Your task to perform on an android device: star an email in the gmail app Image 0: 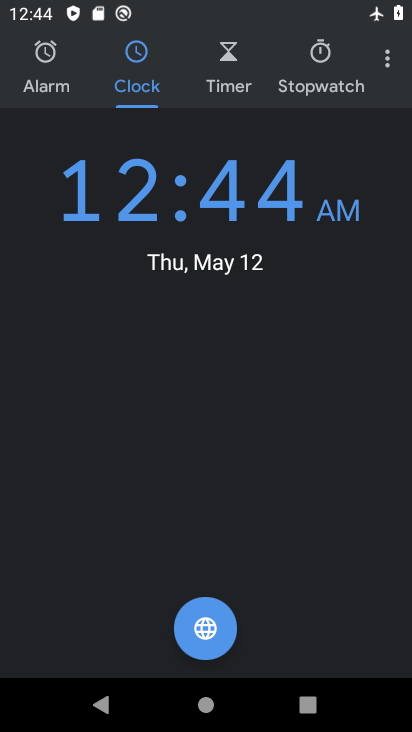
Step 0: press home button
Your task to perform on an android device: star an email in the gmail app Image 1: 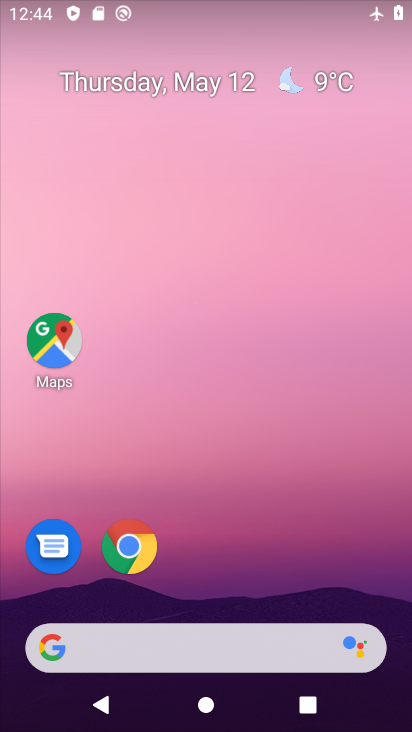
Step 1: drag from (262, 663) to (364, 239)
Your task to perform on an android device: star an email in the gmail app Image 2: 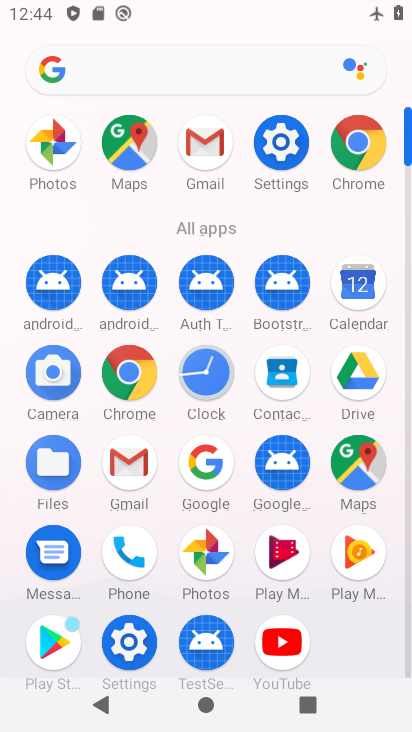
Step 2: click (183, 157)
Your task to perform on an android device: star an email in the gmail app Image 3: 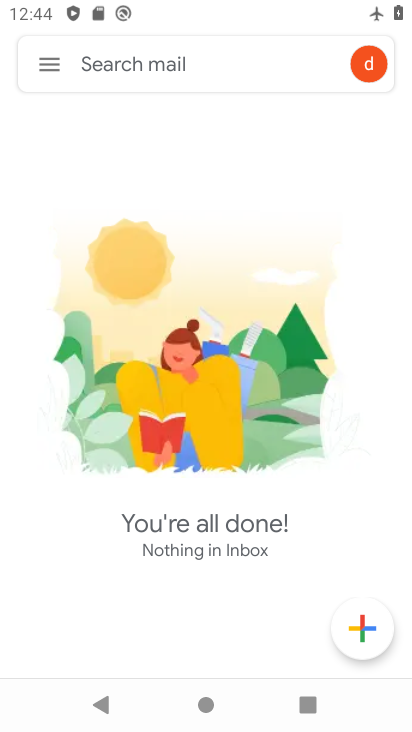
Step 3: click (52, 70)
Your task to perform on an android device: star an email in the gmail app Image 4: 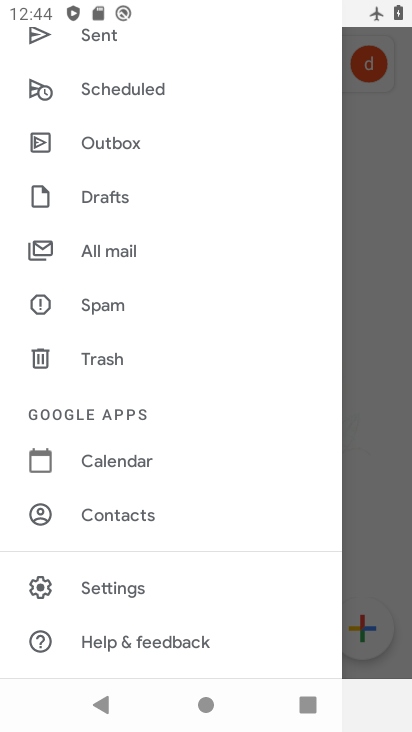
Step 4: drag from (127, 114) to (86, 321)
Your task to perform on an android device: star an email in the gmail app Image 5: 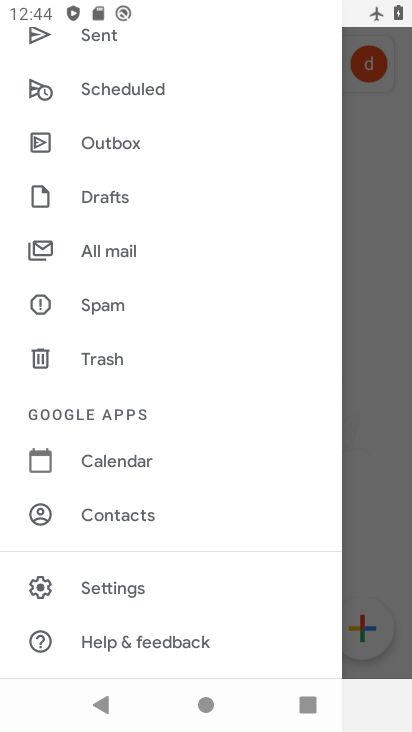
Step 5: drag from (83, 101) to (79, 293)
Your task to perform on an android device: star an email in the gmail app Image 6: 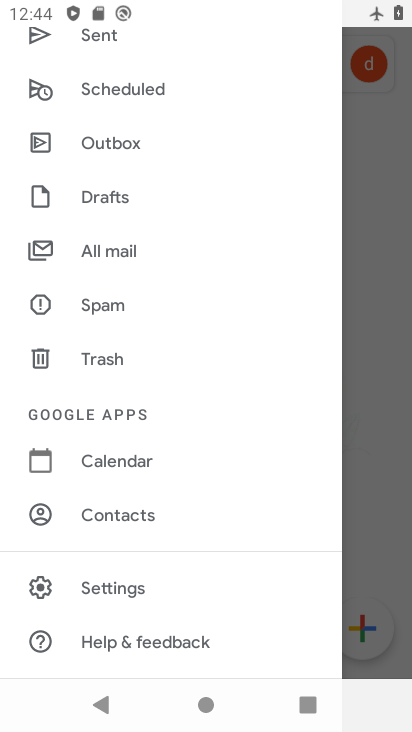
Step 6: drag from (96, 156) to (185, 419)
Your task to perform on an android device: star an email in the gmail app Image 7: 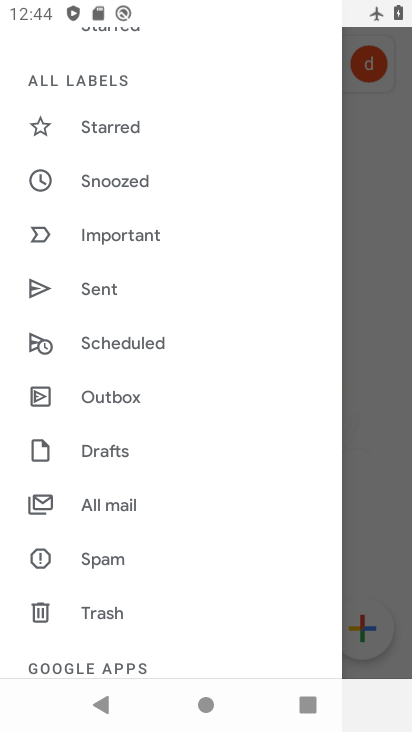
Step 7: click (123, 131)
Your task to perform on an android device: star an email in the gmail app Image 8: 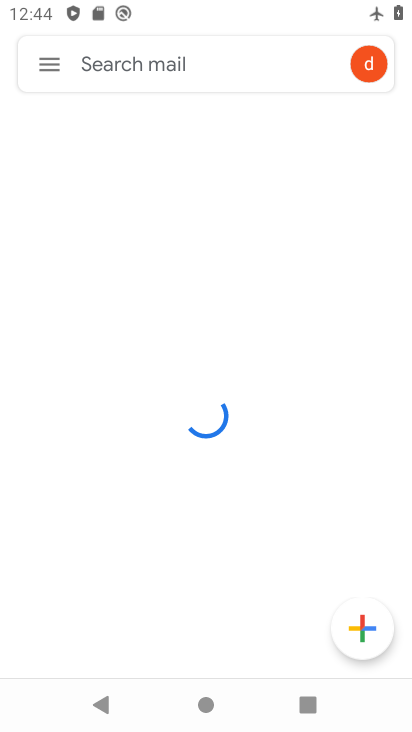
Step 8: task complete